Your task to perform on an android device: change the clock style Image 0: 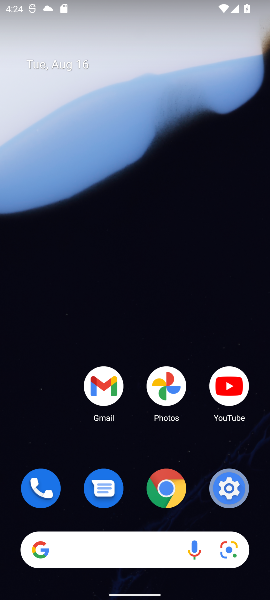
Step 0: drag from (65, 280) to (168, 0)
Your task to perform on an android device: change the clock style Image 1: 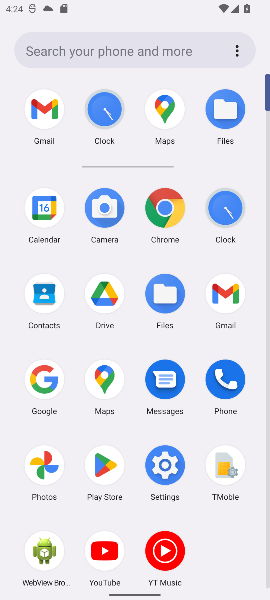
Step 1: click (225, 207)
Your task to perform on an android device: change the clock style Image 2: 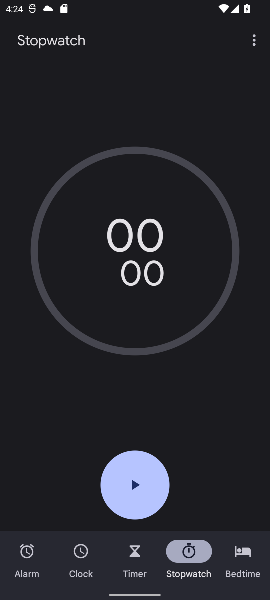
Step 2: task complete